Your task to perform on an android device: change your default location settings in chrome Image 0: 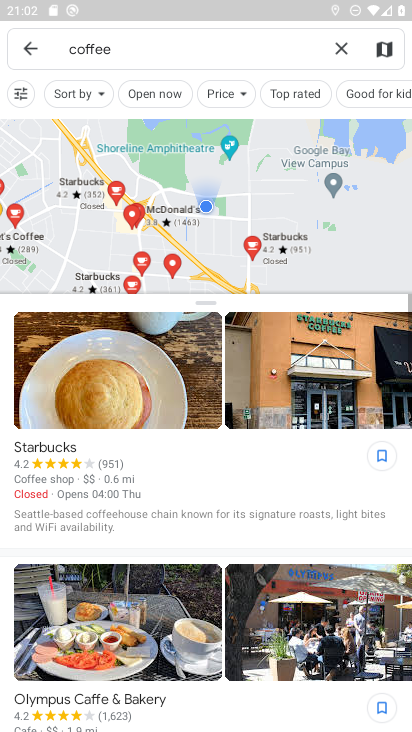
Step 0: press home button
Your task to perform on an android device: change your default location settings in chrome Image 1: 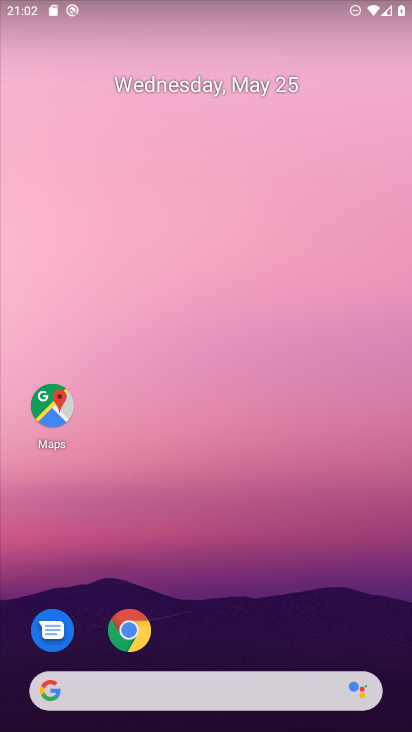
Step 1: click (135, 634)
Your task to perform on an android device: change your default location settings in chrome Image 2: 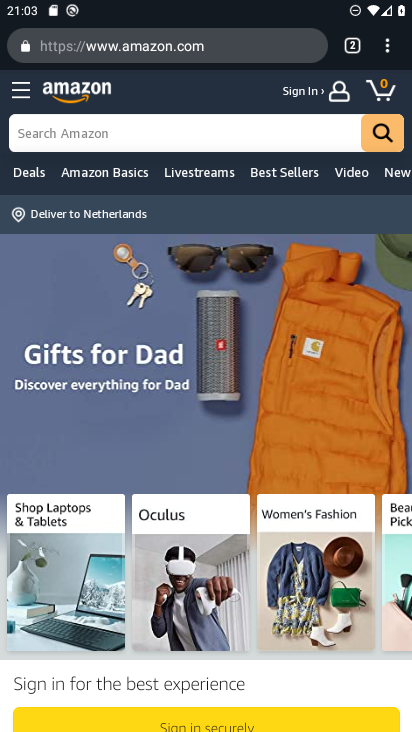
Step 2: click (380, 42)
Your task to perform on an android device: change your default location settings in chrome Image 3: 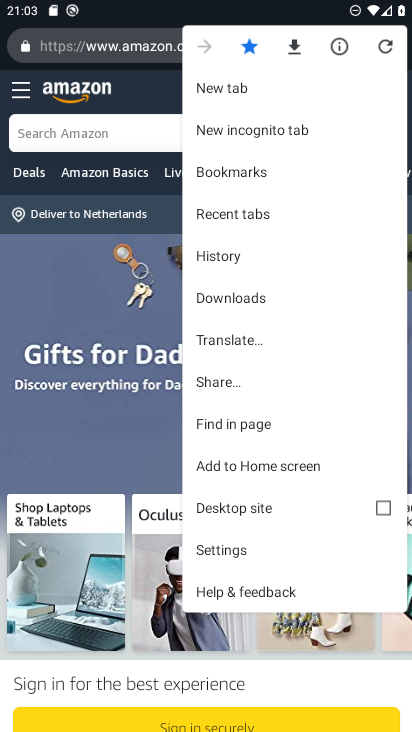
Step 3: click (271, 548)
Your task to perform on an android device: change your default location settings in chrome Image 4: 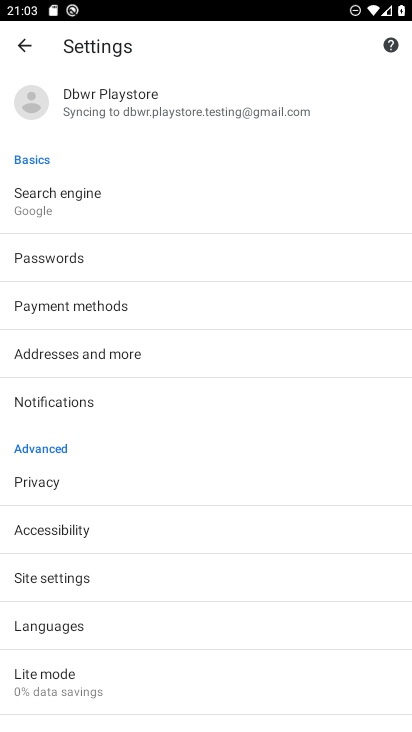
Step 4: drag from (65, 647) to (71, 498)
Your task to perform on an android device: change your default location settings in chrome Image 5: 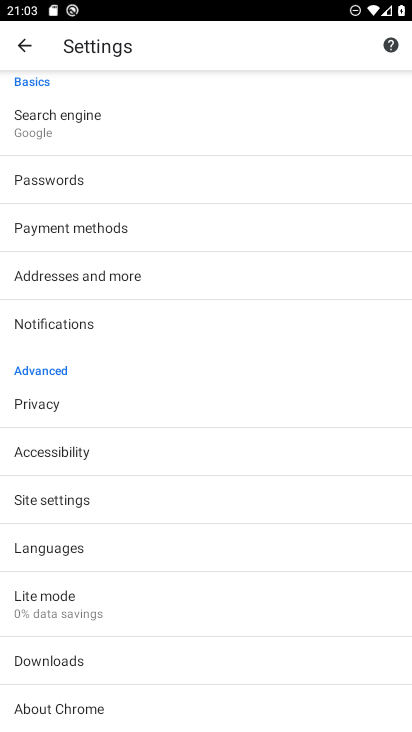
Step 5: click (79, 496)
Your task to perform on an android device: change your default location settings in chrome Image 6: 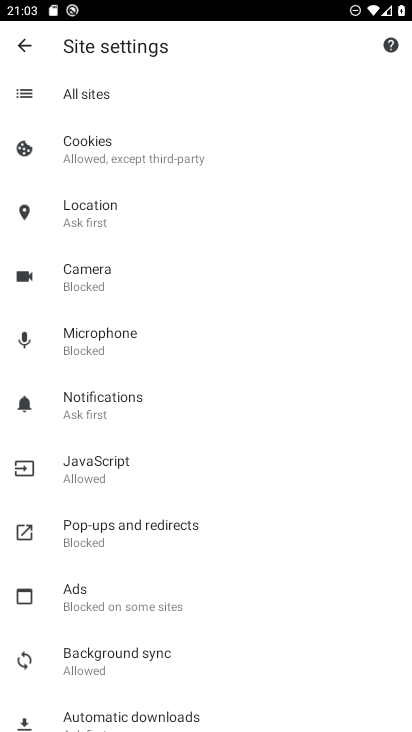
Step 6: click (98, 223)
Your task to perform on an android device: change your default location settings in chrome Image 7: 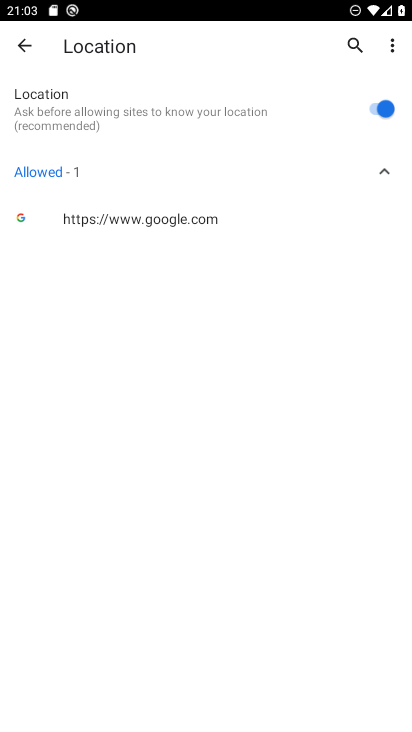
Step 7: click (390, 116)
Your task to perform on an android device: change your default location settings in chrome Image 8: 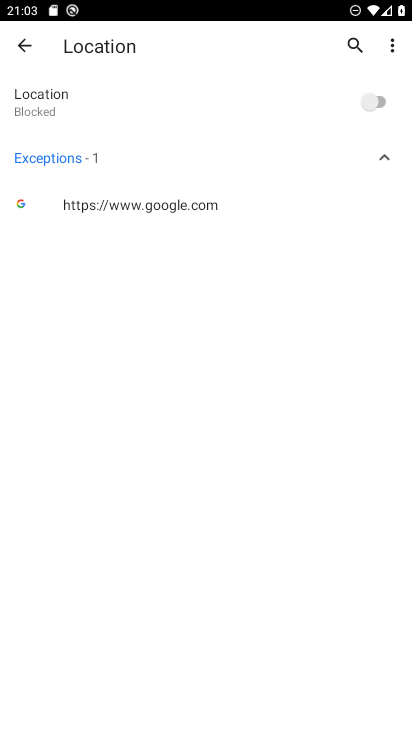
Step 8: task complete